Your task to perform on an android device: Go to sound settings Image 0: 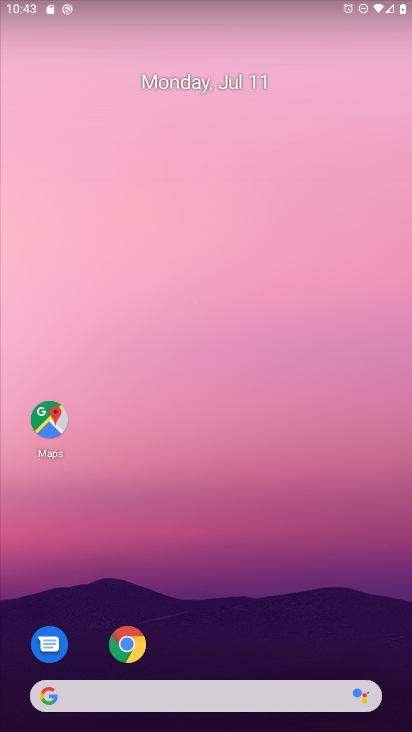
Step 0: drag from (163, 570) to (161, 353)
Your task to perform on an android device: Go to sound settings Image 1: 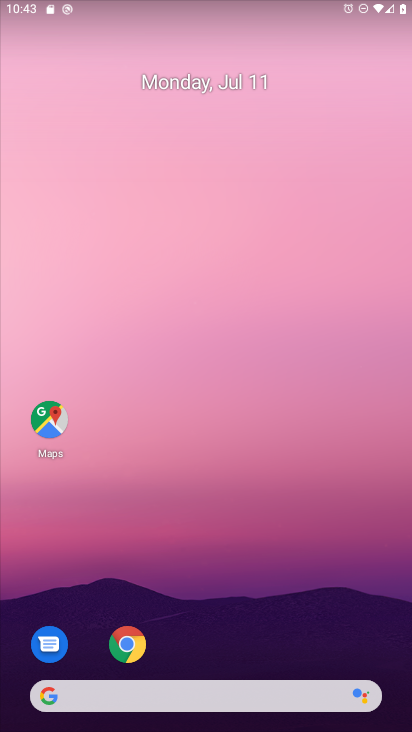
Step 1: drag from (150, 633) to (149, 145)
Your task to perform on an android device: Go to sound settings Image 2: 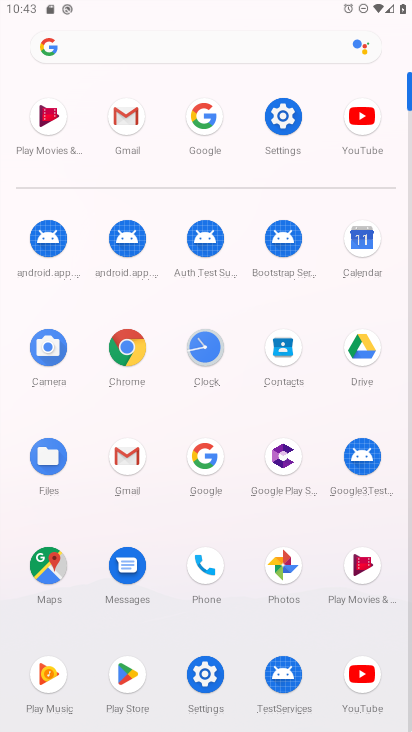
Step 2: click (277, 115)
Your task to perform on an android device: Go to sound settings Image 3: 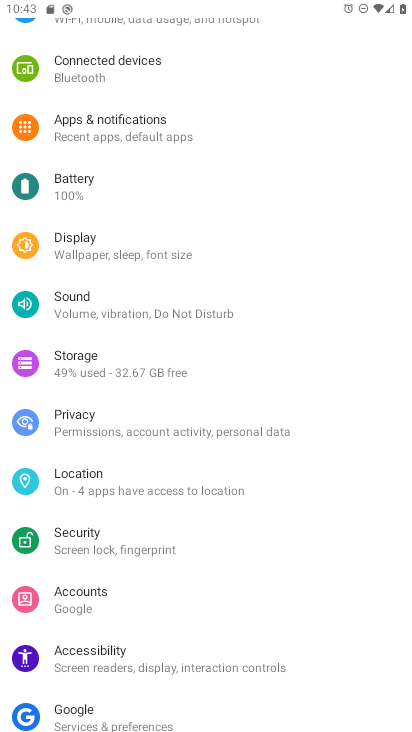
Step 3: click (76, 311)
Your task to perform on an android device: Go to sound settings Image 4: 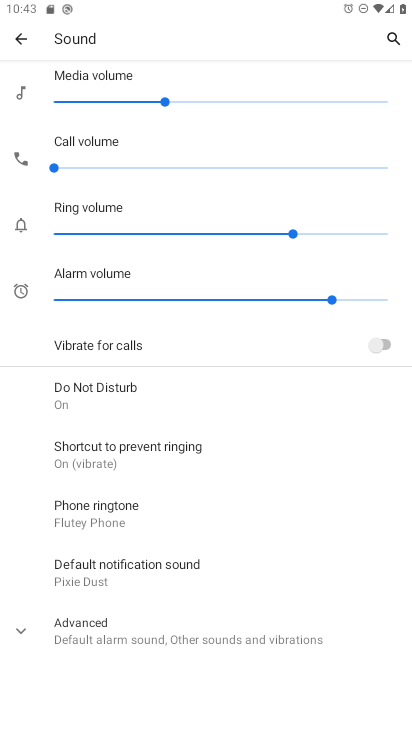
Step 4: task complete